Your task to perform on an android device: Open Maps and search for coffee Image 0: 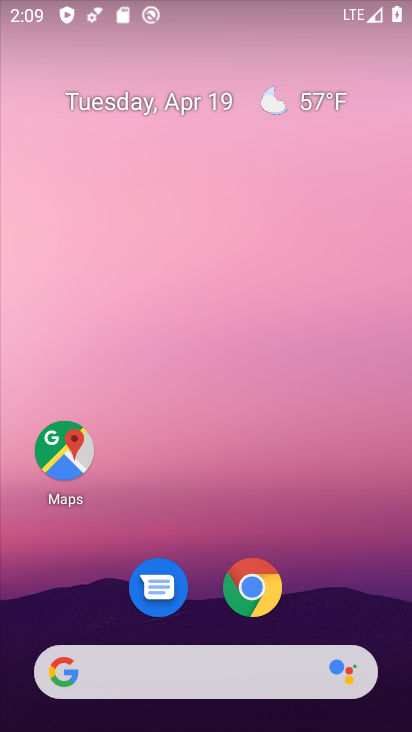
Step 0: click (67, 429)
Your task to perform on an android device: Open Maps and search for coffee Image 1: 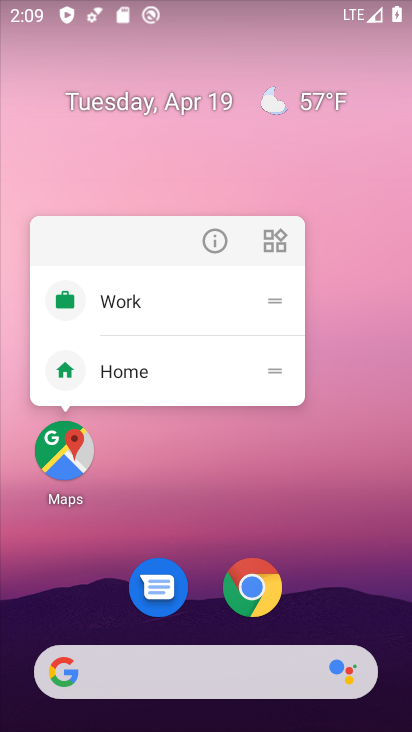
Step 1: click (93, 449)
Your task to perform on an android device: Open Maps and search for coffee Image 2: 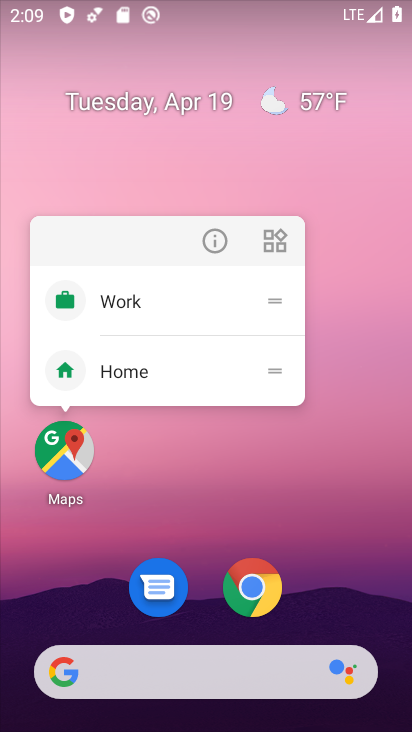
Step 2: drag from (90, 480) to (90, 515)
Your task to perform on an android device: Open Maps and search for coffee Image 3: 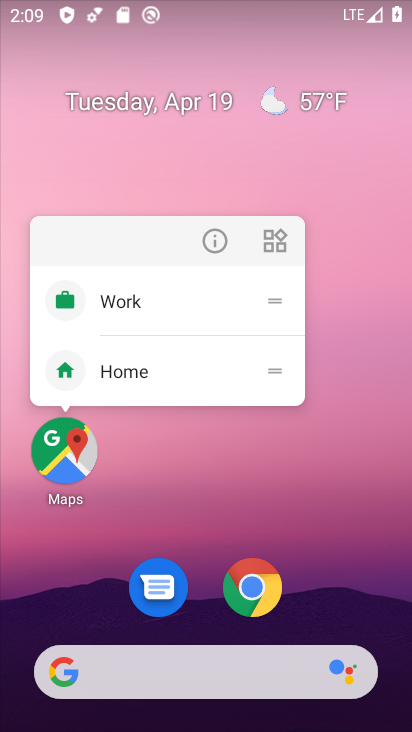
Step 3: click (90, 516)
Your task to perform on an android device: Open Maps and search for coffee Image 4: 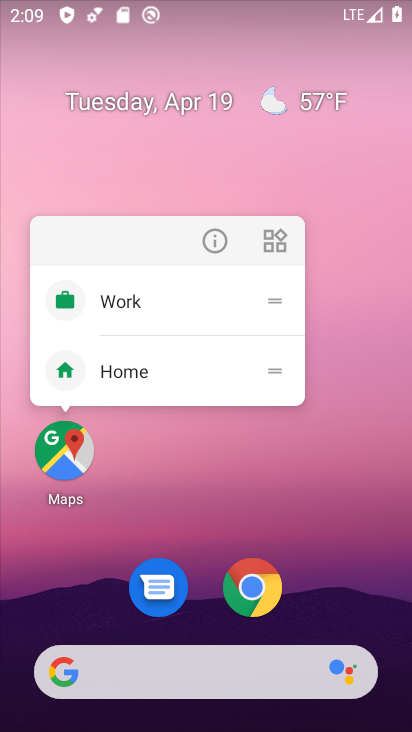
Step 4: drag from (268, 559) to (234, 304)
Your task to perform on an android device: Open Maps and search for coffee Image 5: 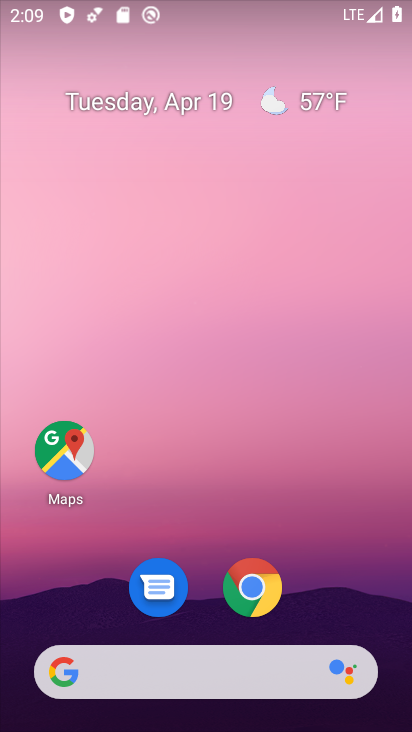
Step 5: click (141, 356)
Your task to perform on an android device: Open Maps and search for coffee Image 6: 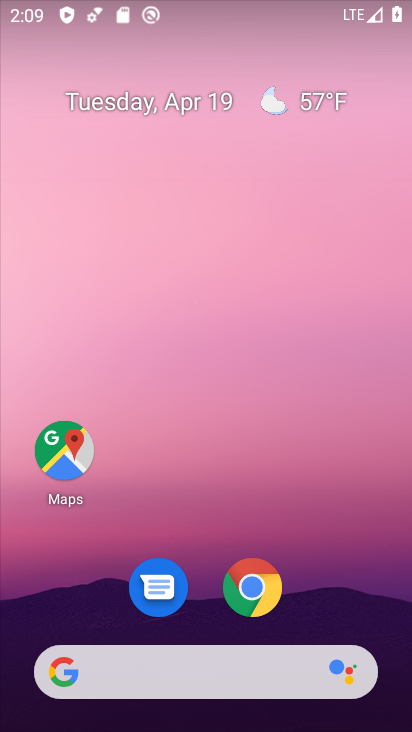
Step 6: drag from (390, 574) to (271, 182)
Your task to perform on an android device: Open Maps and search for coffee Image 7: 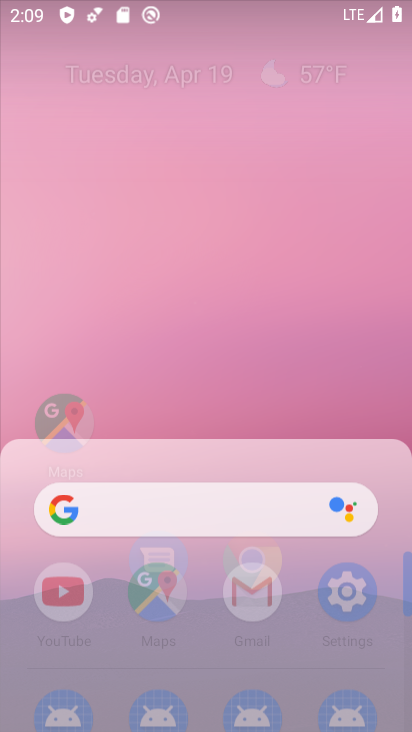
Step 7: drag from (290, 474) to (181, 166)
Your task to perform on an android device: Open Maps and search for coffee Image 8: 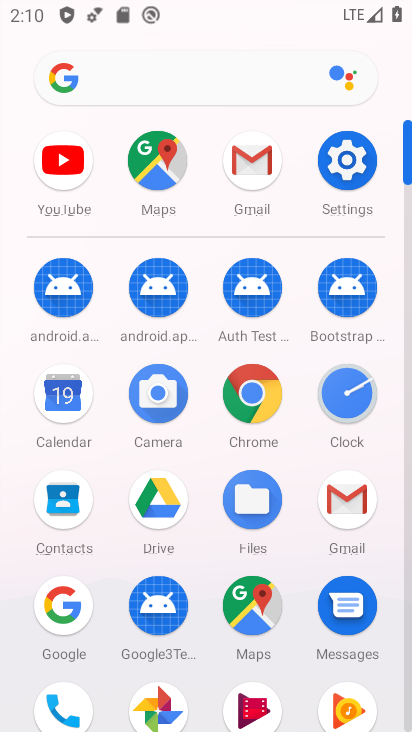
Step 8: click (177, 172)
Your task to perform on an android device: Open Maps and search for coffee Image 9: 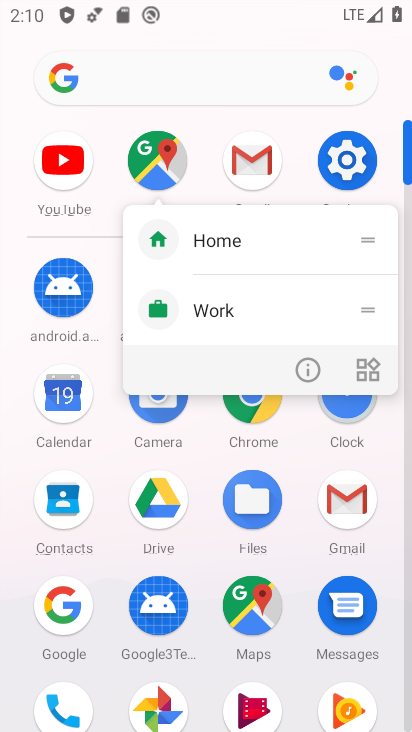
Step 9: click (177, 172)
Your task to perform on an android device: Open Maps and search for coffee Image 10: 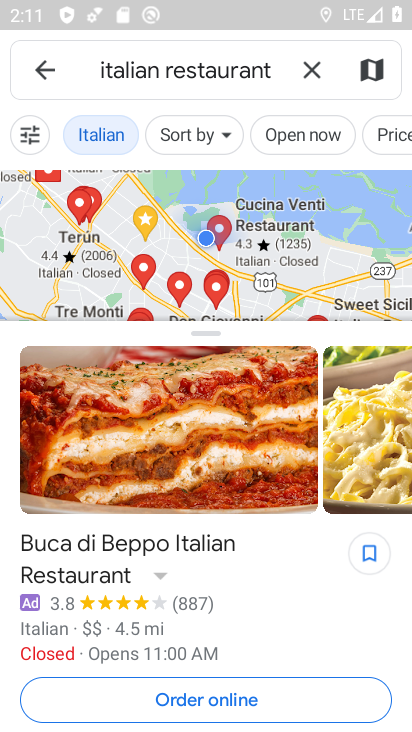
Step 10: click (133, 78)
Your task to perform on an android device: Open Maps and search for coffee Image 11: 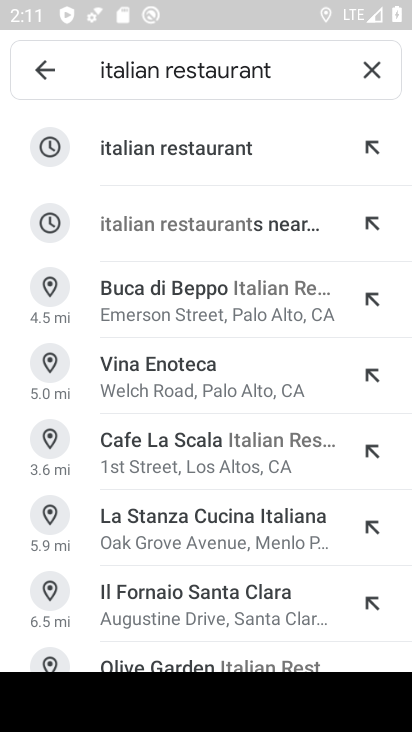
Step 11: click (365, 75)
Your task to perform on an android device: Open Maps and search for coffee Image 12: 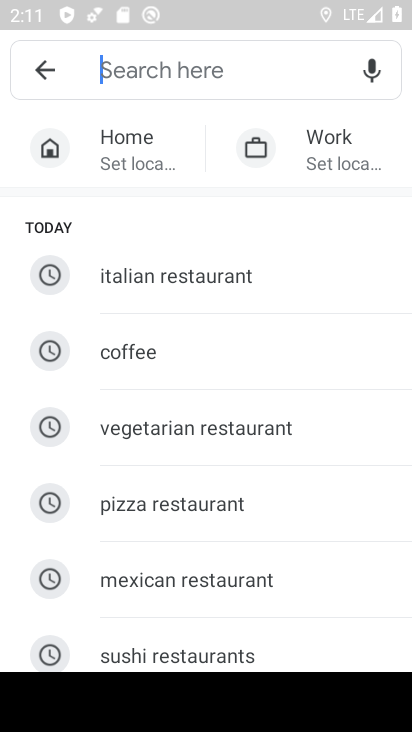
Step 12: click (140, 333)
Your task to perform on an android device: Open Maps and search for coffee Image 13: 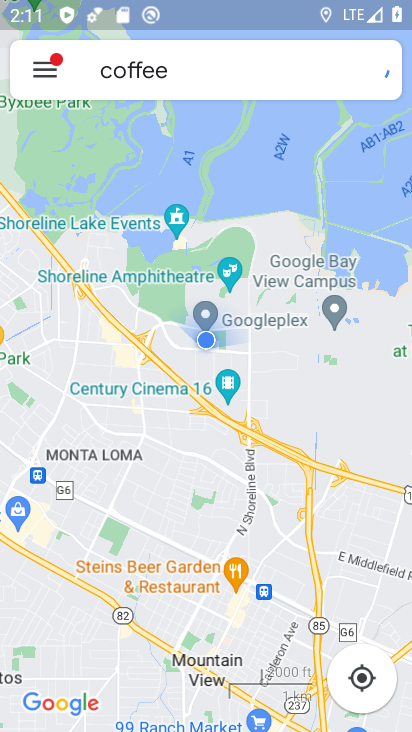
Step 13: task complete